Your task to perform on an android device: Open ESPN.com Image 0: 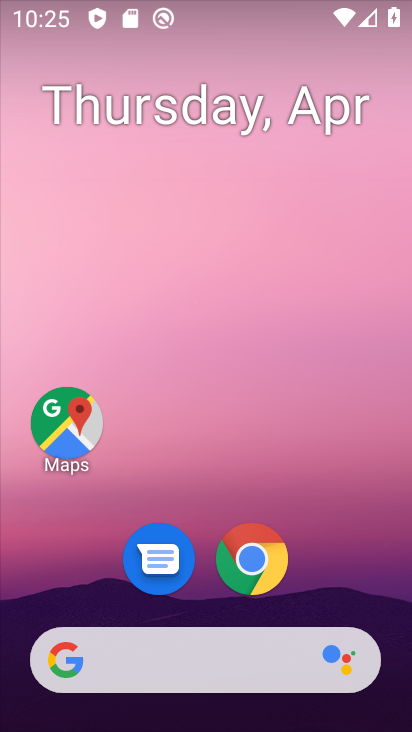
Step 0: drag from (254, 646) to (226, 198)
Your task to perform on an android device: Open ESPN.com Image 1: 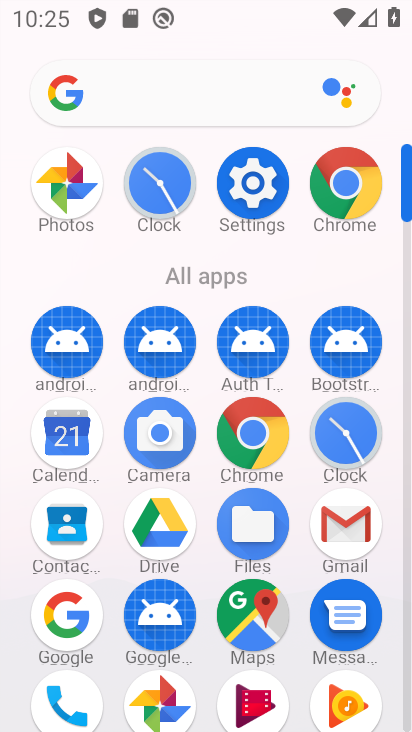
Step 1: click (345, 167)
Your task to perform on an android device: Open ESPN.com Image 2: 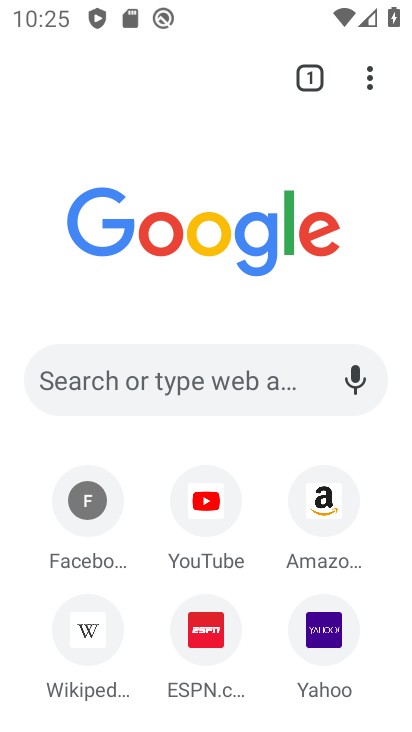
Step 2: click (205, 649)
Your task to perform on an android device: Open ESPN.com Image 3: 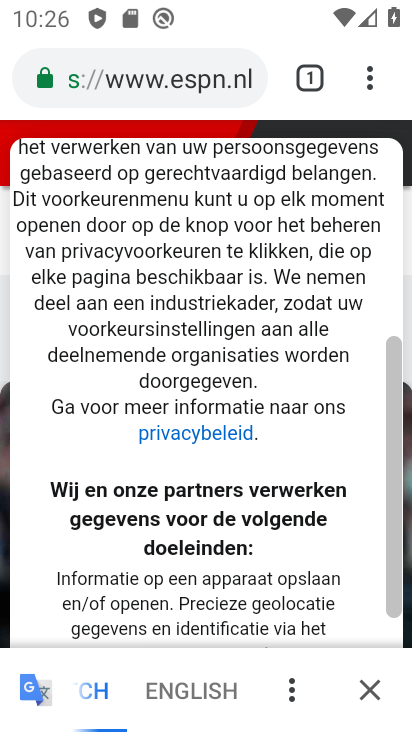
Step 3: task complete